Your task to perform on an android device: turn pop-ups on in chrome Image 0: 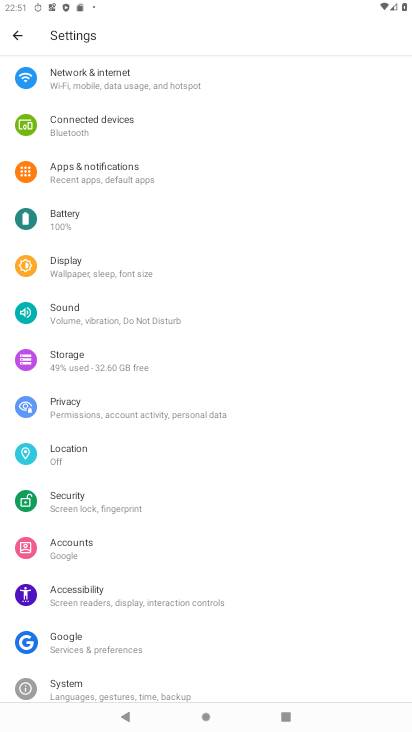
Step 0: press home button
Your task to perform on an android device: turn pop-ups on in chrome Image 1: 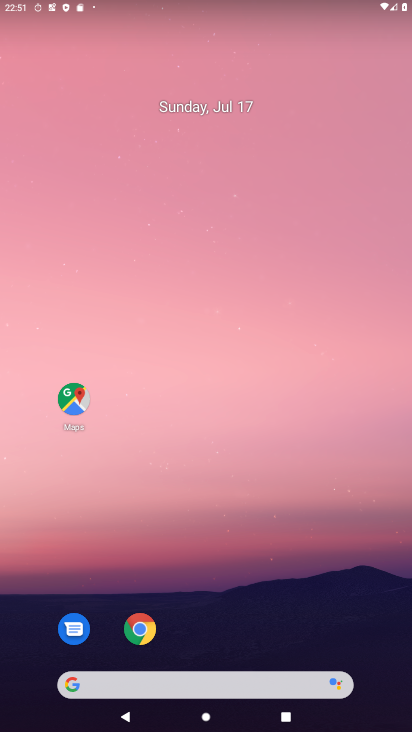
Step 1: click (136, 629)
Your task to perform on an android device: turn pop-ups on in chrome Image 2: 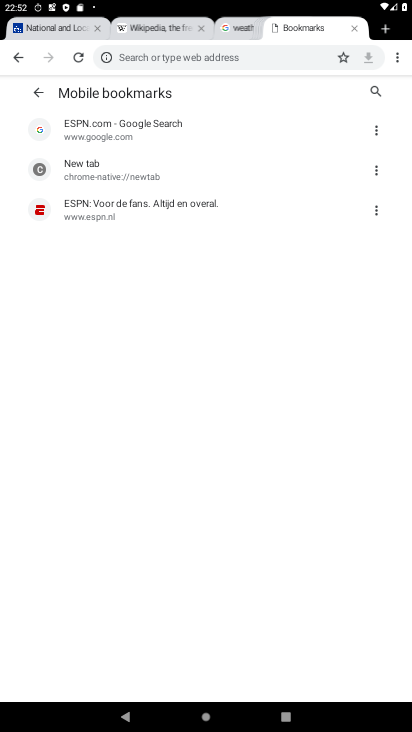
Step 2: click (398, 61)
Your task to perform on an android device: turn pop-ups on in chrome Image 3: 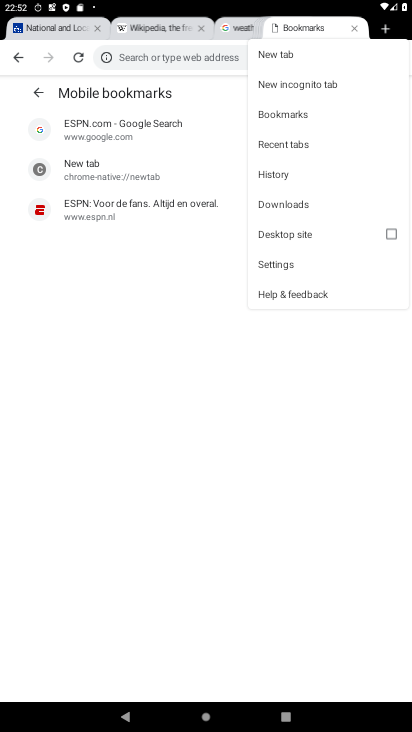
Step 3: click (276, 258)
Your task to perform on an android device: turn pop-ups on in chrome Image 4: 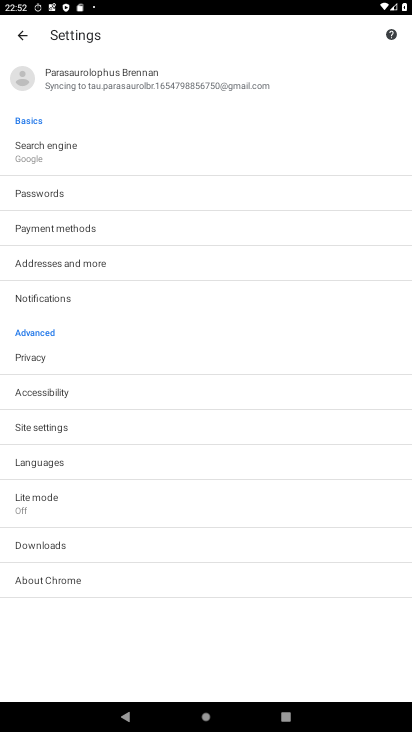
Step 4: click (36, 431)
Your task to perform on an android device: turn pop-ups on in chrome Image 5: 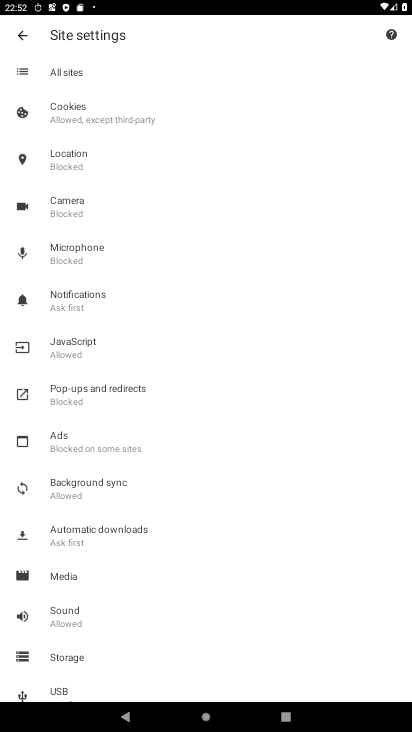
Step 5: click (101, 393)
Your task to perform on an android device: turn pop-ups on in chrome Image 6: 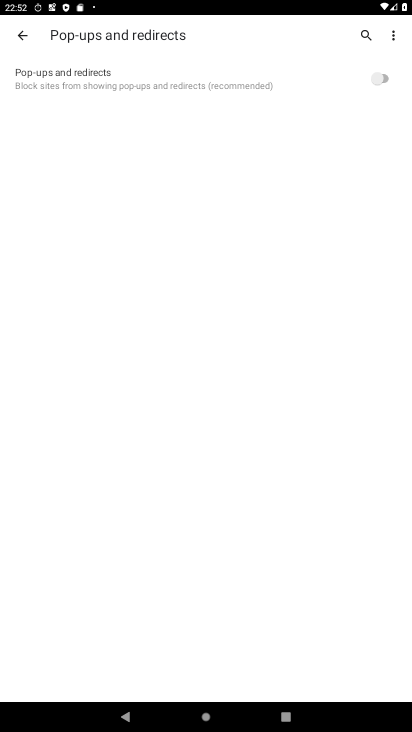
Step 6: click (386, 79)
Your task to perform on an android device: turn pop-ups on in chrome Image 7: 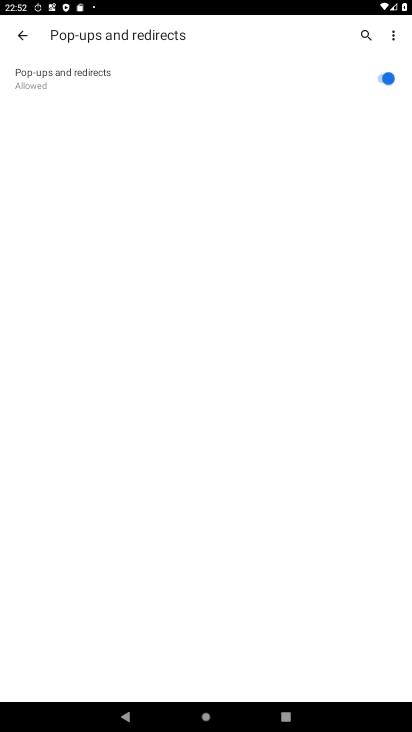
Step 7: task complete